Your task to perform on an android device: change notifications settings Image 0: 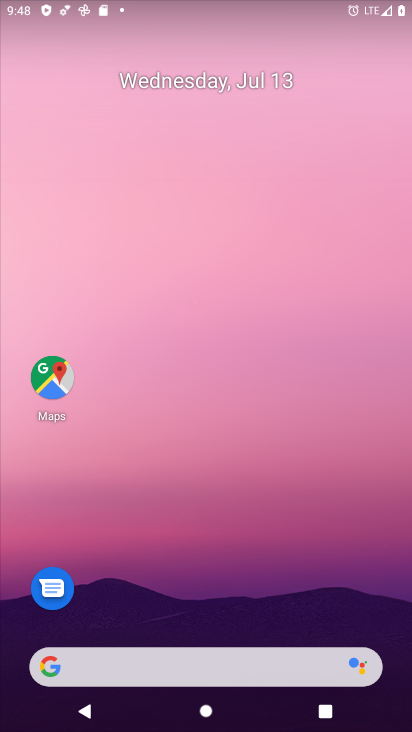
Step 0: drag from (233, 663) to (299, 59)
Your task to perform on an android device: change notifications settings Image 1: 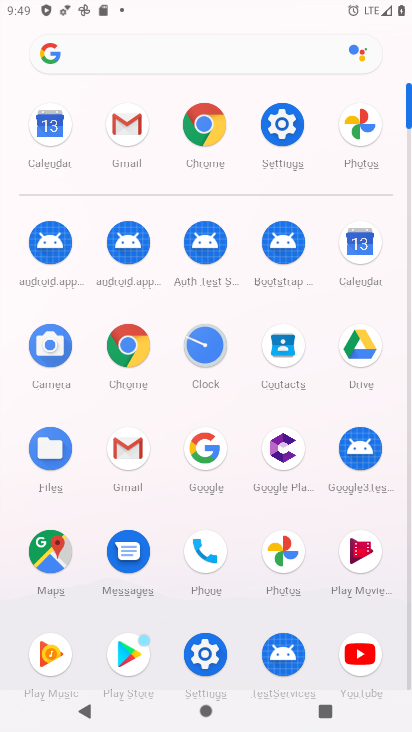
Step 1: click (278, 132)
Your task to perform on an android device: change notifications settings Image 2: 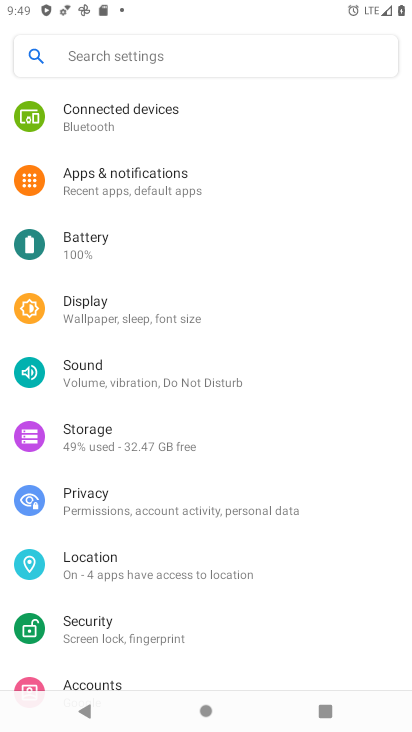
Step 2: click (207, 185)
Your task to perform on an android device: change notifications settings Image 3: 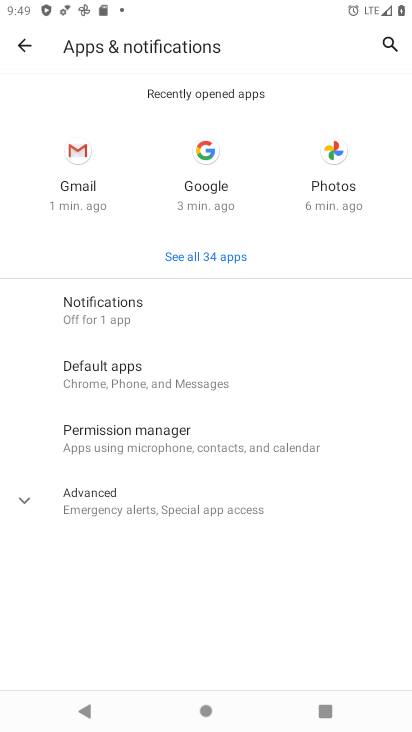
Step 3: click (152, 313)
Your task to perform on an android device: change notifications settings Image 4: 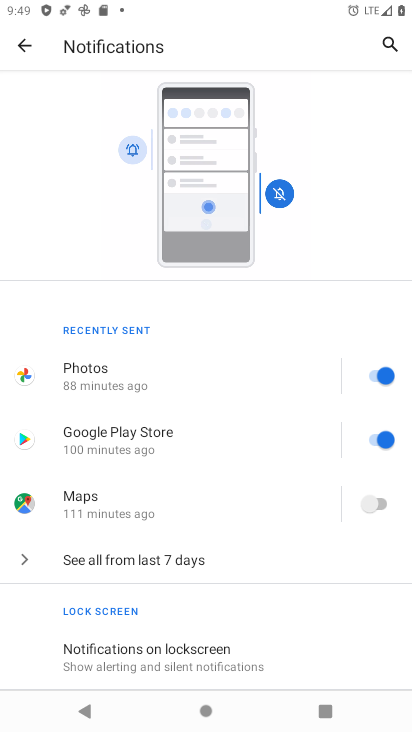
Step 4: click (388, 376)
Your task to perform on an android device: change notifications settings Image 5: 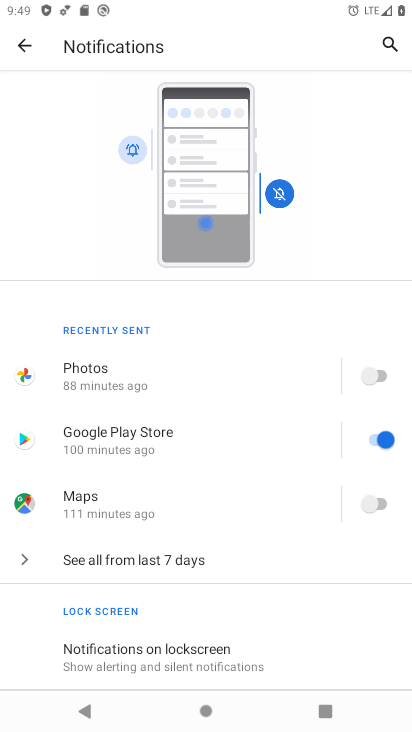
Step 5: task complete